Your task to perform on an android device: Search for vegetarian restaurants on Maps Image 0: 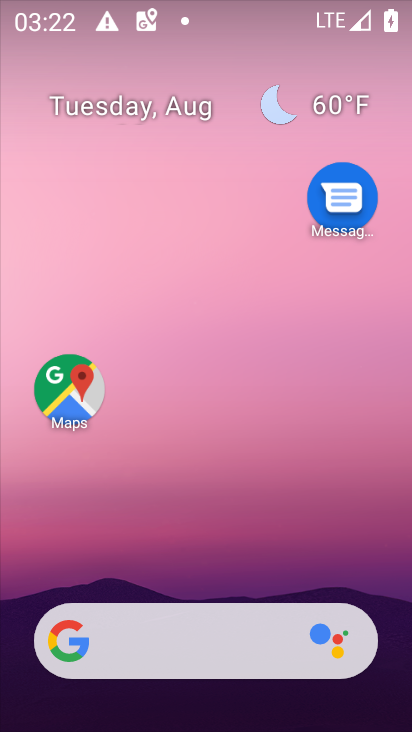
Step 0: click (65, 394)
Your task to perform on an android device: Search for vegetarian restaurants on Maps Image 1: 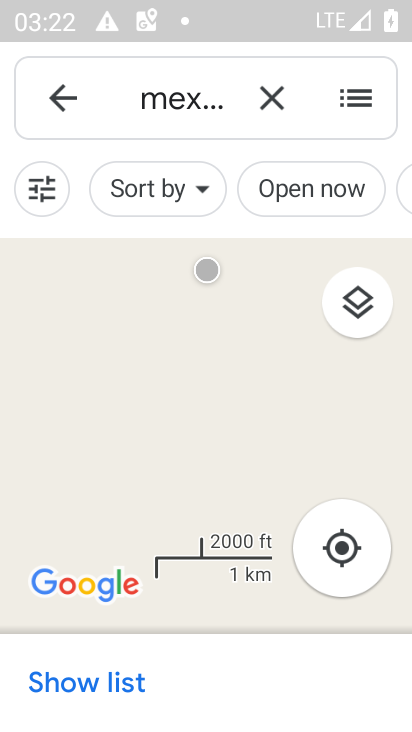
Step 1: click (276, 96)
Your task to perform on an android device: Search for vegetarian restaurants on Maps Image 2: 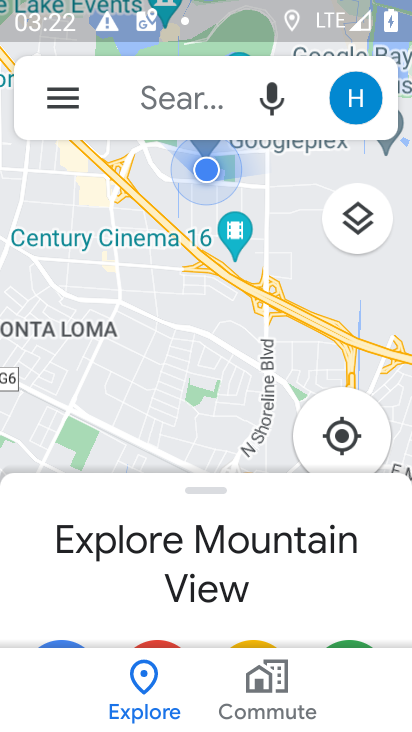
Step 2: click (190, 114)
Your task to perform on an android device: Search for vegetarian restaurants on Maps Image 3: 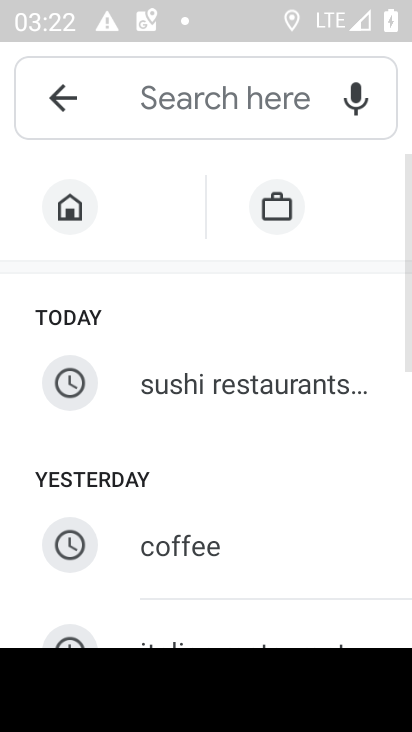
Step 3: drag from (218, 588) to (195, 258)
Your task to perform on an android device: Search for vegetarian restaurants on Maps Image 4: 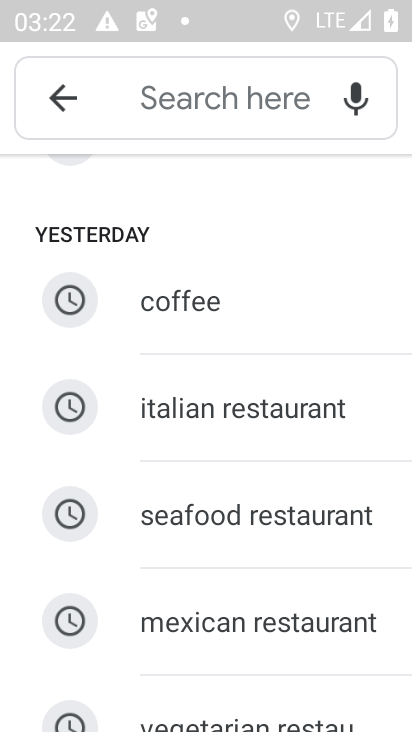
Step 4: click (226, 697)
Your task to perform on an android device: Search for vegetarian restaurants on Maps Image 5: 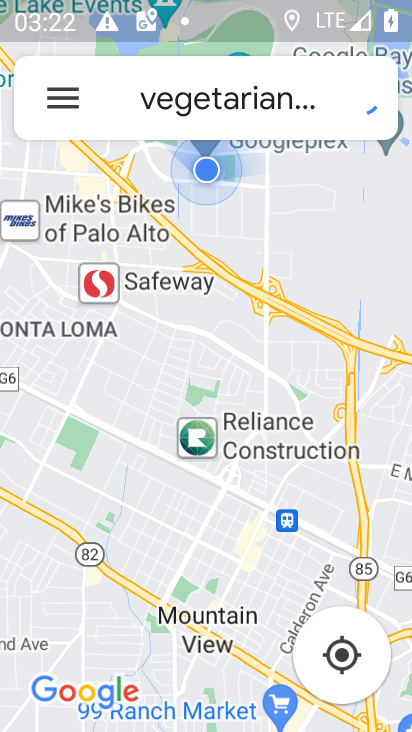
Step 5: task complete